Your task to perform on an android device: Show me popular videos on Youtube Image 0: 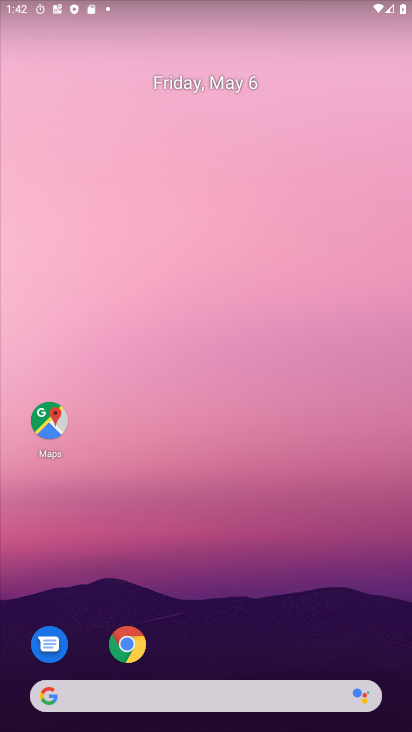
Step 0: click (43, 414)
Your task to perform on an android device: Show me popular videos on Youtube Image 1: 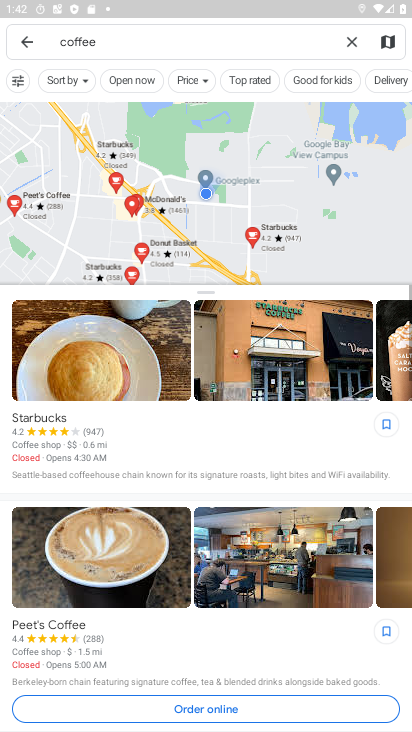
Step 1: task complete